Your task to perform on an android device: Go to Yahoo.com Image 0: 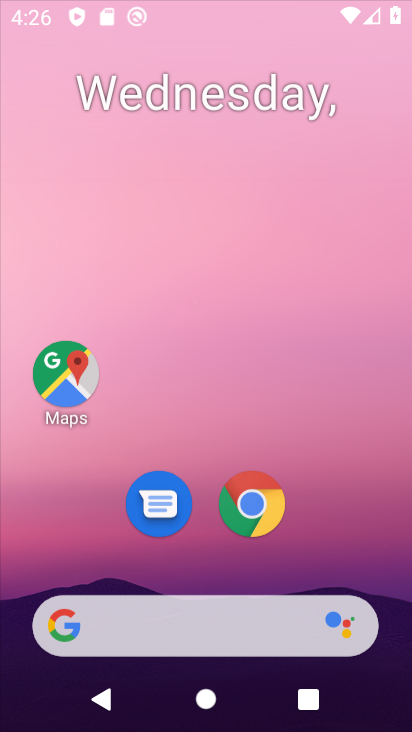
Step 0: click (321, 0)
Your task to perform on an android device: Go to Yahoo.com Image 1: 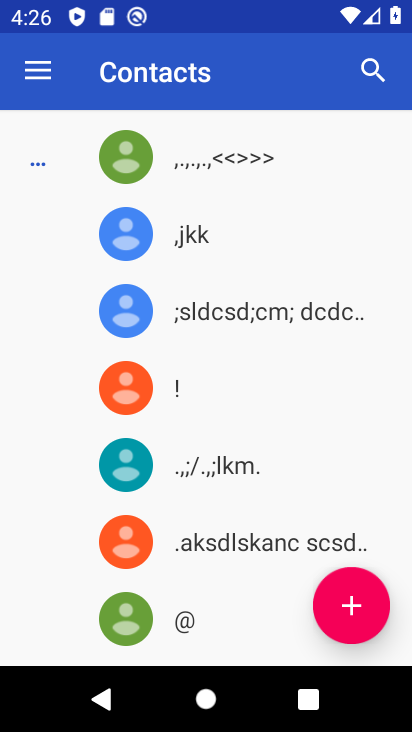
Step 1: press home button
Your task to perform on an android device: Go to Yahoo.com Image 2: 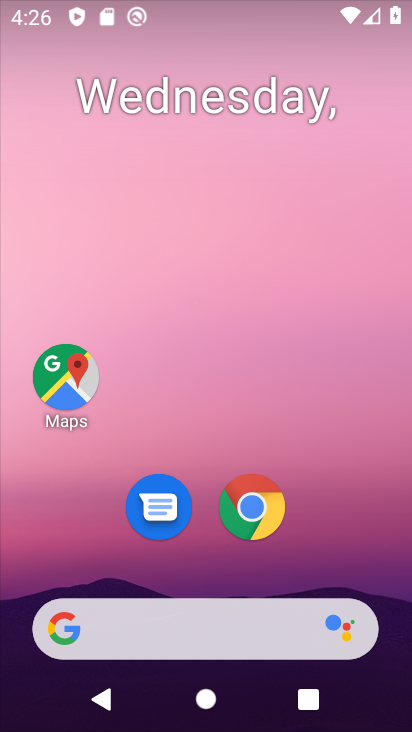
Step 2: drag from (317, 468) to (276, 48)
Your task to perform on an android device: Go to Yahoo.com Image 3: 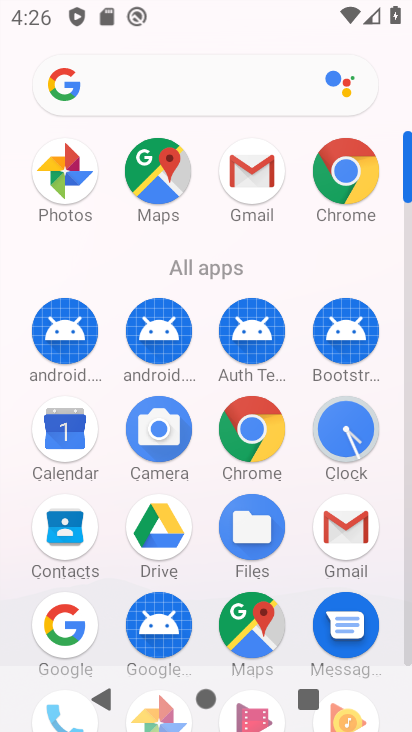
Step 3: click (357, 203)
Your task to perform on an android device: Go to Yahoo.com Image 4: 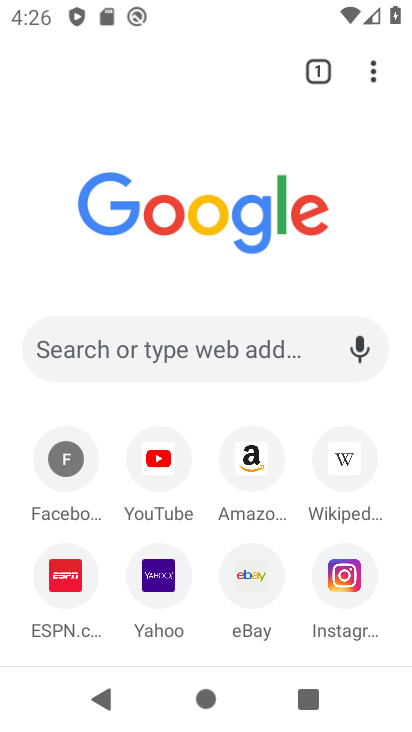
Step 4: click (151, 572)
Your task to perform on an android device: Go to Yahoo.com Image 5: 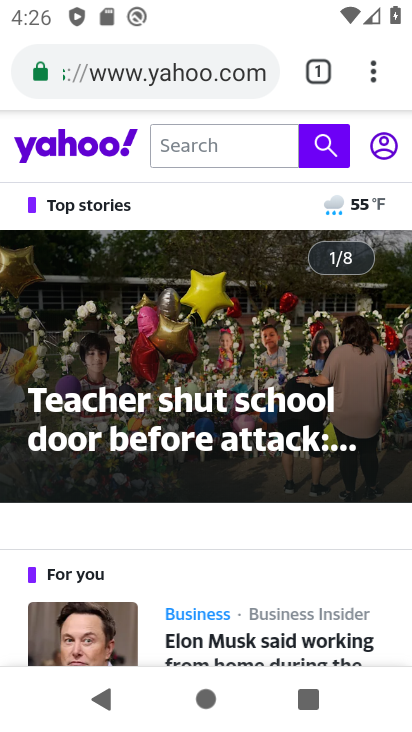
Step 5: task complete